Your task to perform on an android device: turn on javascript in the chrome app Image 0: 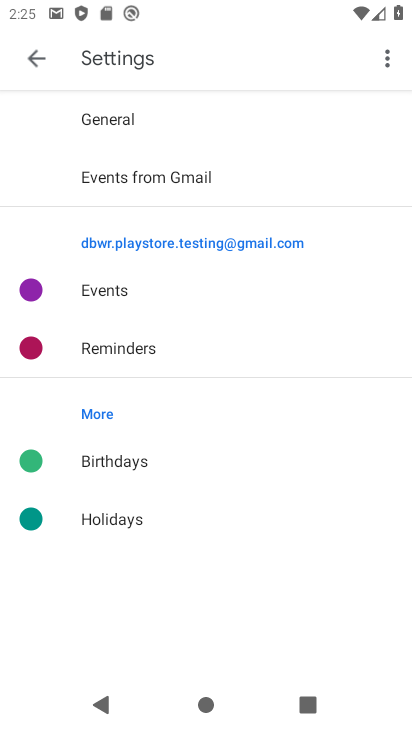
Step 0: press home button
Your task to perform on an android device: turn on javascript in the chrome app Image 1: 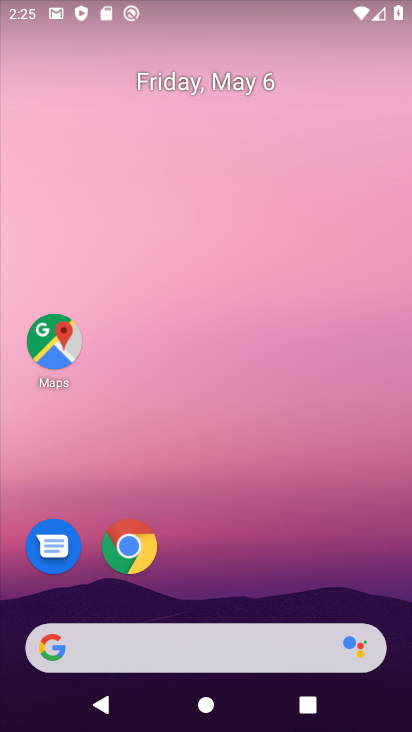
Step 1: drag from (307, 539) to (298, 159)
Your task to perform on an android device: turn on javascript in the chrome app Image 2: 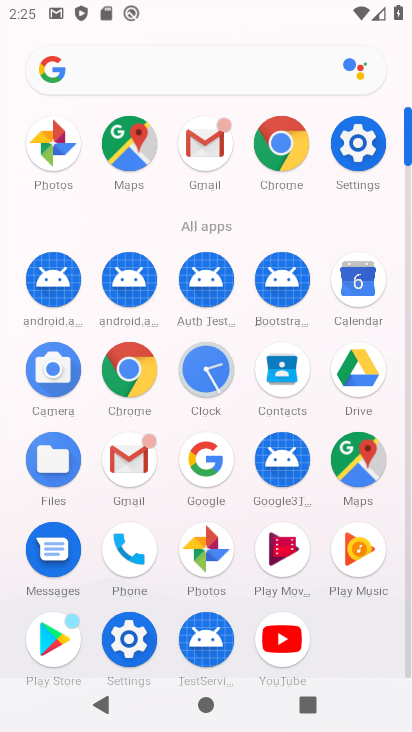
Step 2: click (288, 158)
Your task to perform on an android device: turn on javascript in the chrome app Image 3: 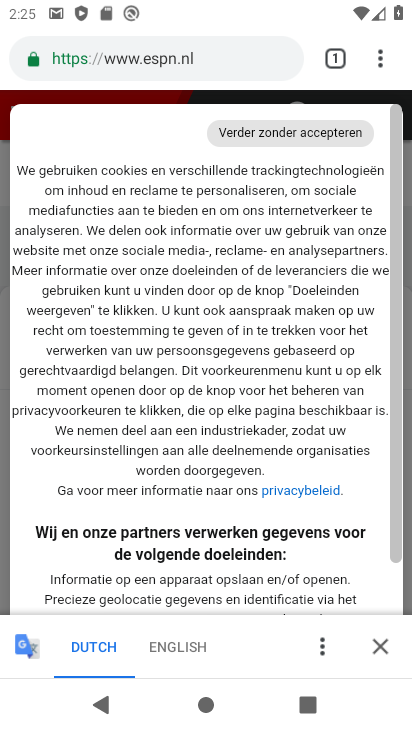
Step 3: click (391, 62)
Your task to perform on an android device: turn on javascript in the chrome app Image 4: 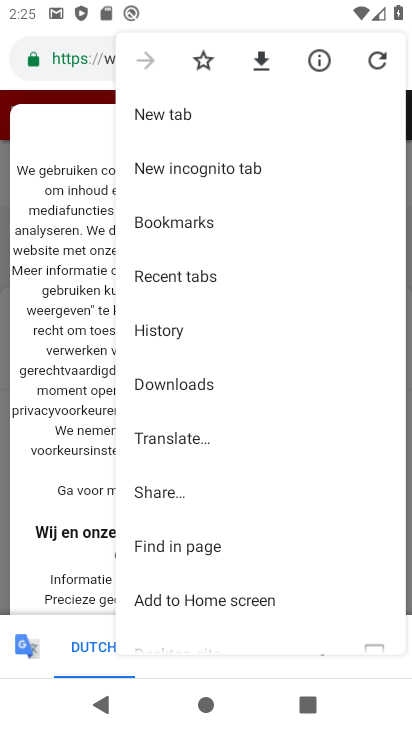
Step 4: drag from (251, 604) to (244, 274)
Your task to perform on an android device: turn on javascript in the chrome app Image 5: 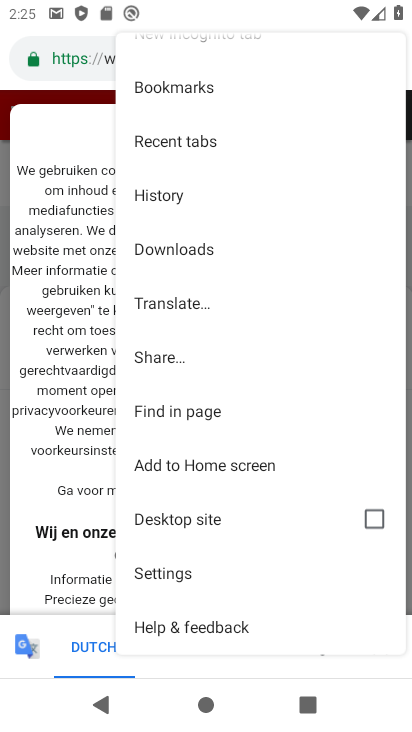
Step 5: click (168, 574)
Your task to perform on an android device: turn on javascript in the chrome app Image 6: 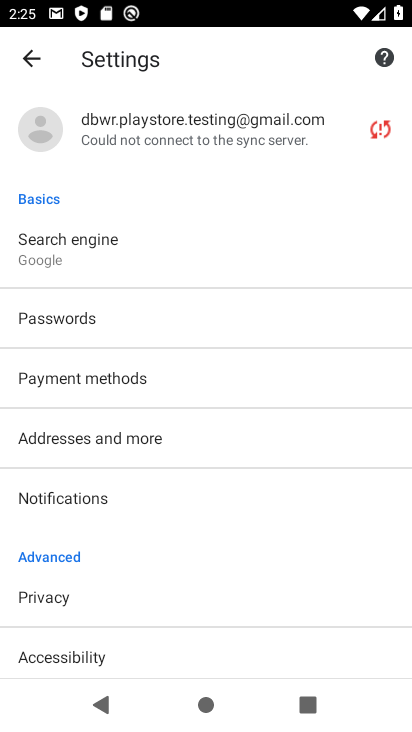
Step 6: drag from (208, 541) to (224, 199)
Your task to perform on an android device: turn on javascript in the chrome app Image 7: 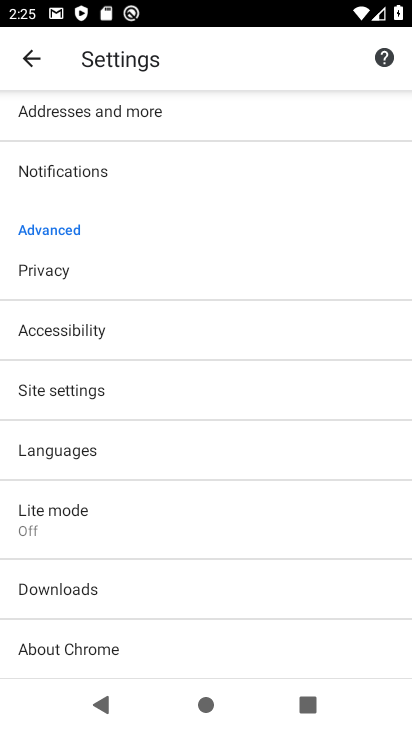
Step 7: click (77, 396)
Your task to perform on an android device: turn on javascript in the chrome app Image 8: 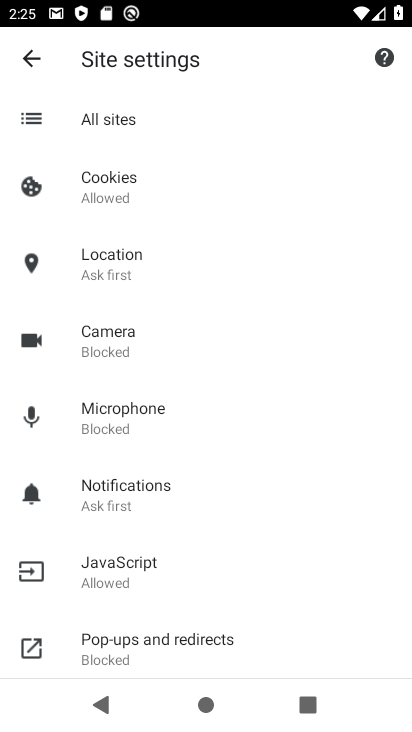
Step 8: click (117, 577)
Your task to perform on an android device: turn on javascript in the chrome app Image 9: 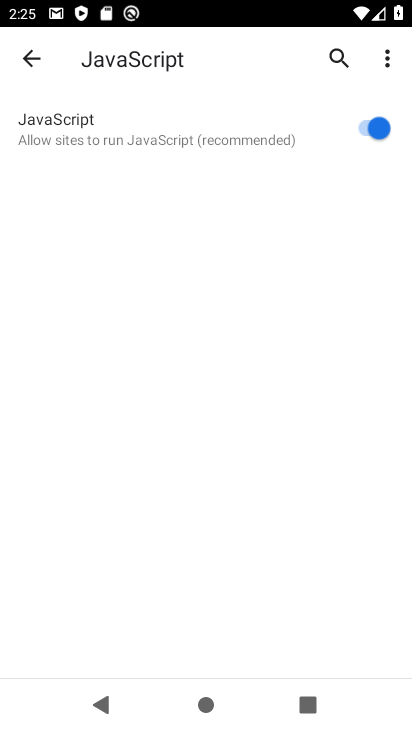
Step 9: task complete